Your task to perform on an android device: Open settings Image 0: 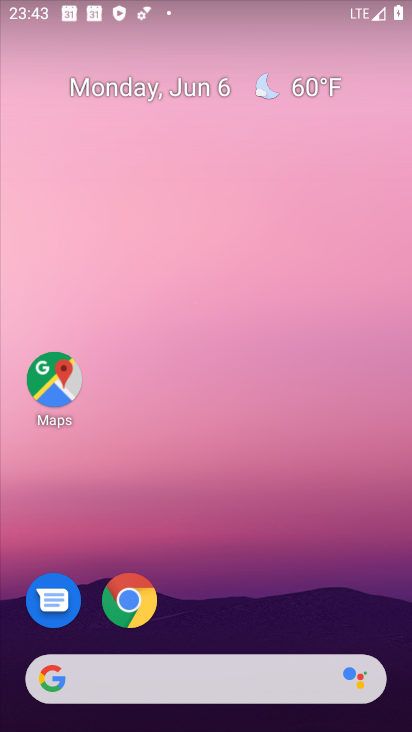
Step 0: drag from (213, 710) to (213, 87)
Your task to perform on an android device: Open settings Image 1: 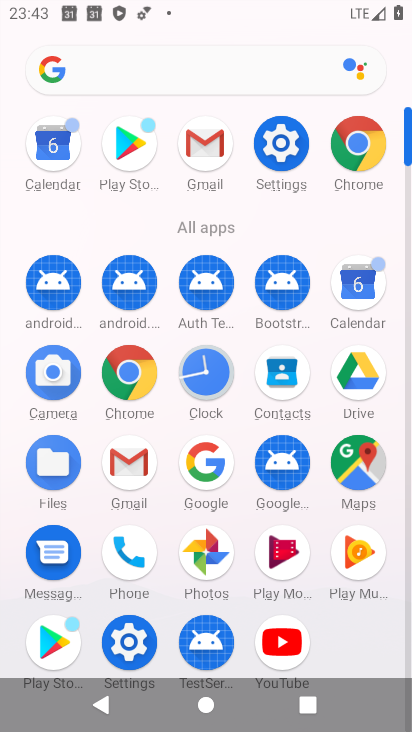
Step 1: click (279, 145)
Your task to perform on an android device: Open settings Image 2: 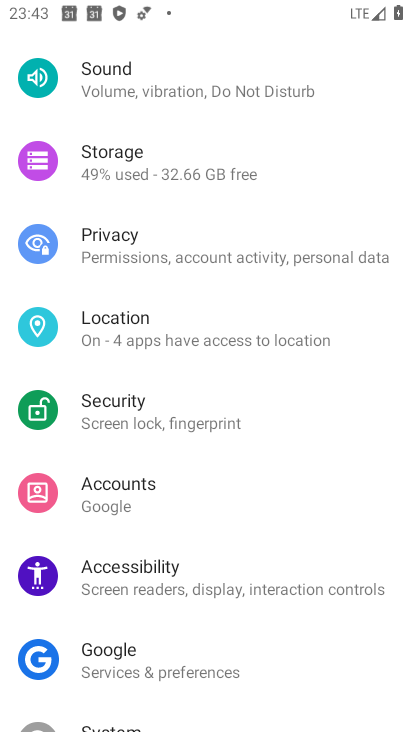
Step 2: task complete